Your task to perform on an android device: toggle translation in the chrome app Image 0: 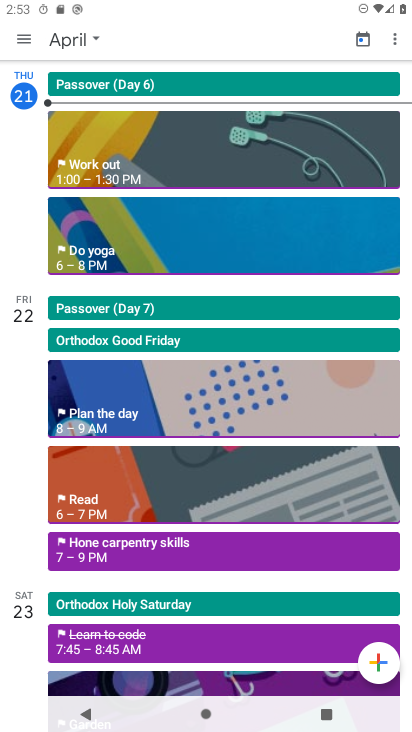
Step 0: press home button
Your task to perform on an android device: toggle translation in the chrome app Image 1: 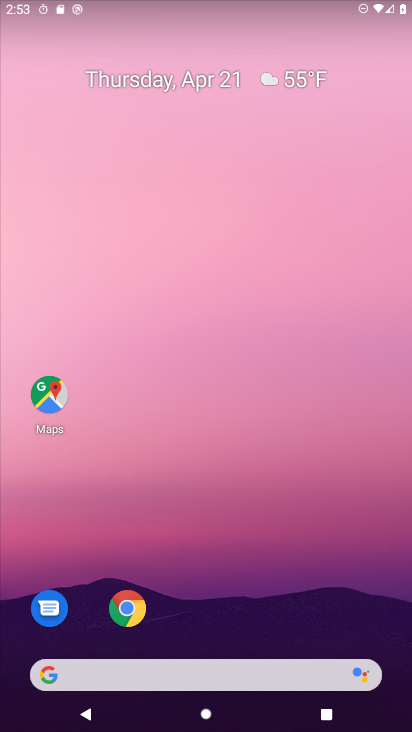
Step 1: drag from (245, 643) to (268, 203)
Your task to perform on an android device: toggle translation in the chrome app Image 2: 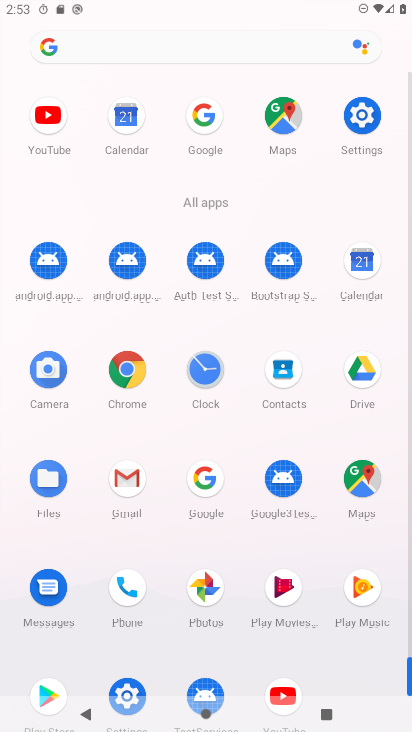
Step 2: click (121, 366)
Your task to perform on an android device: toggle translation in the chrome app Image 3: 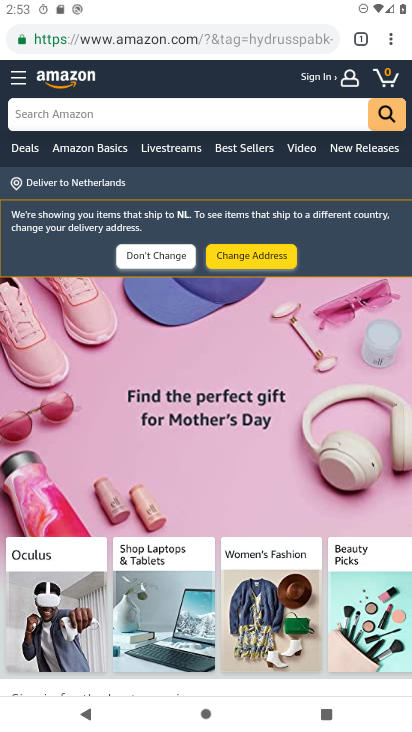
Step 3: click (395, 37)
Your task to perform on an android device: toggle translation in the chrome app Image 4: 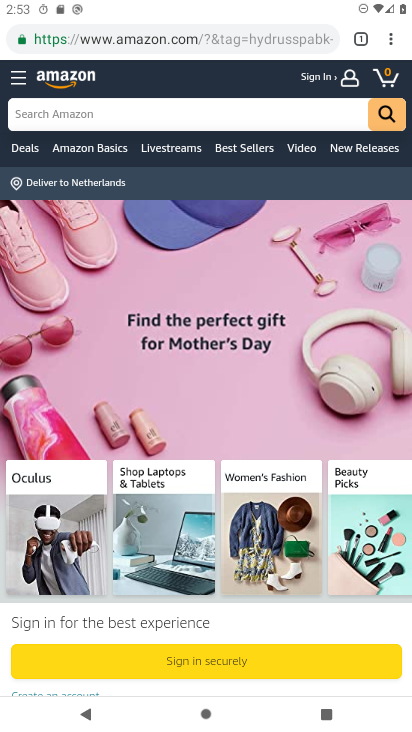
Step 4: click (395, 37)
Your task to perform on an android device: toggle translation in the chrome app Image 5: 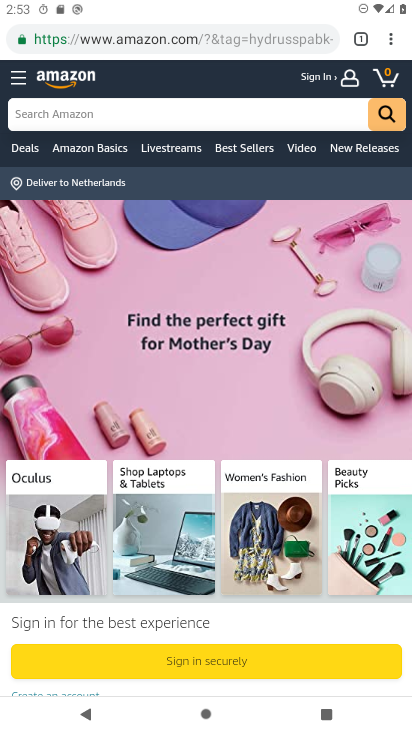
Step 5: click (387, 38)
Your task to perform on an android device: toggle translation in the chrome app Image 6: 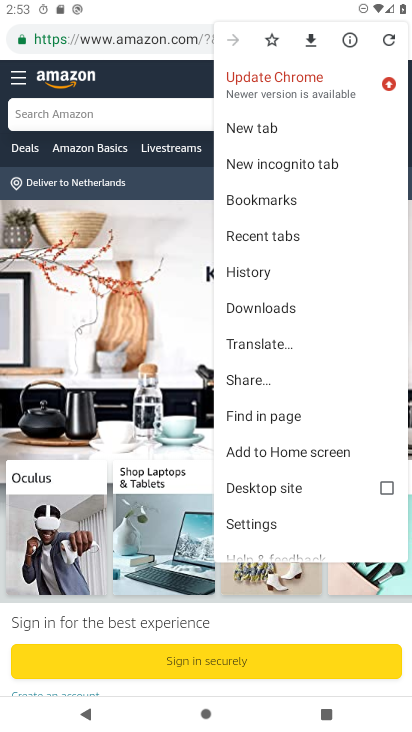
Step 6: click (286, 522)
Your task to perform on an android device: toggle translation in the chrome app Image 7: 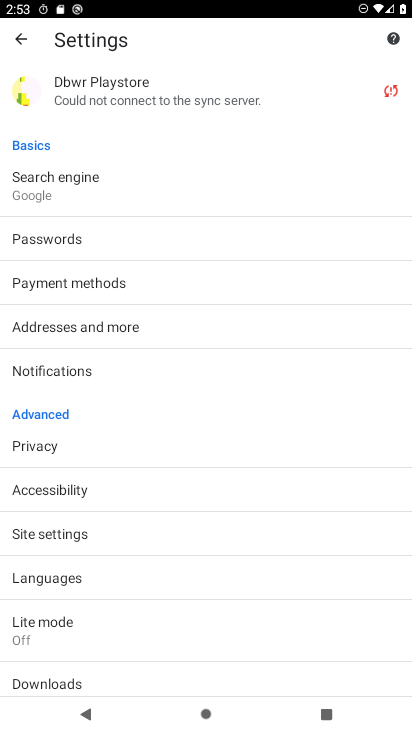
Step 7: click (79, 578)
Your task to perform on an android device: toggle translation in the chrome app Image 8: 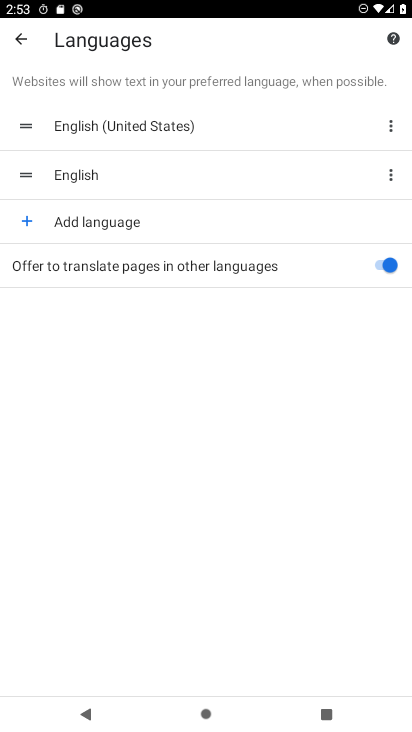
Step 8: click (362, 264)
Your task to perform on an android device: toggle translation in the chrome app Image 9: 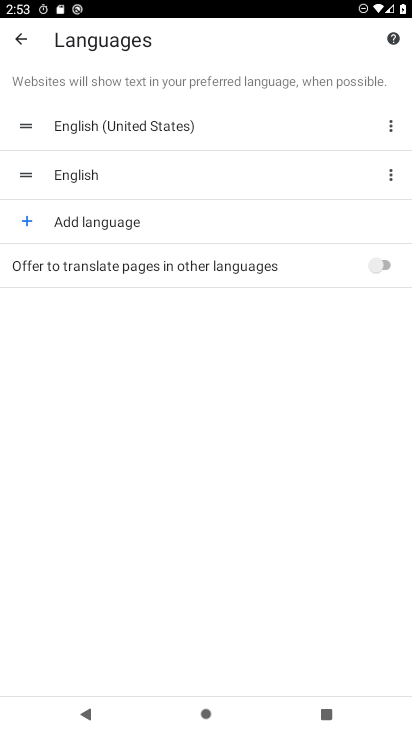
Step 9: task complete